Your task to perform on an android device: turn vacation reply on in the gmail app Image 0: 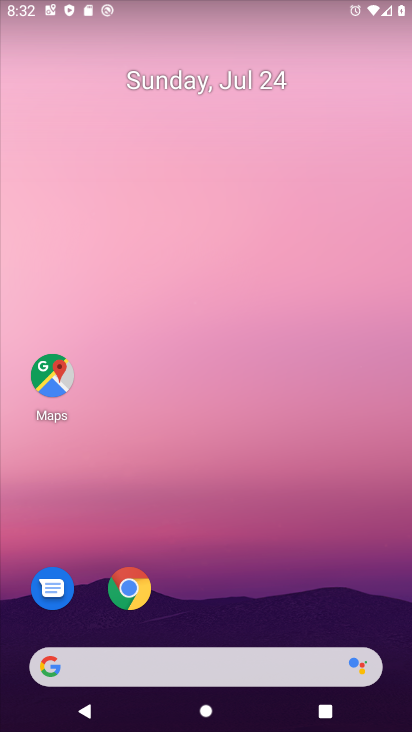
Step 0: drag from (237, 535) to (164, 39)
Your task to perform on an android device: turn vacation reply on in the gmail app Image 1: 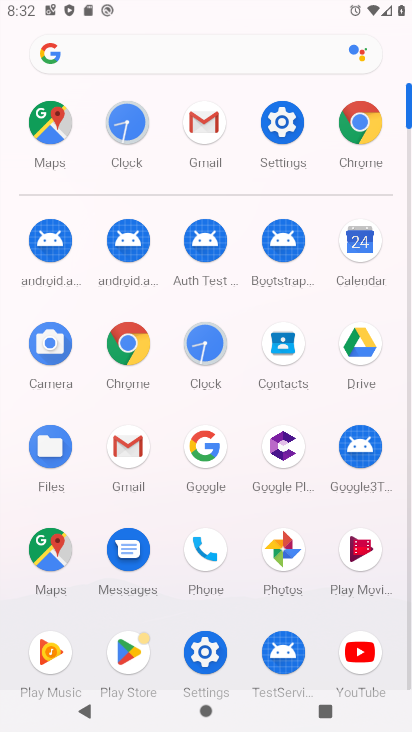
Step 1: click (196, 139)
Your task to perform on an android device: turn vacation reply on in the gmail app Image 2: 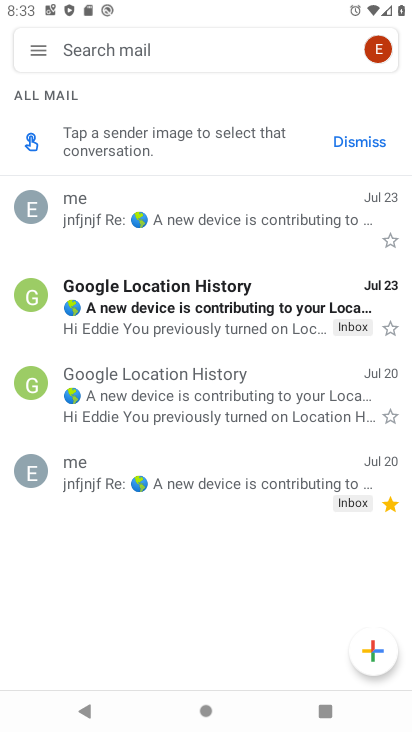
Step 2: click (23, 35)
Your task to perform on an android device: turn vacation reply on in the gmail app Image 3: 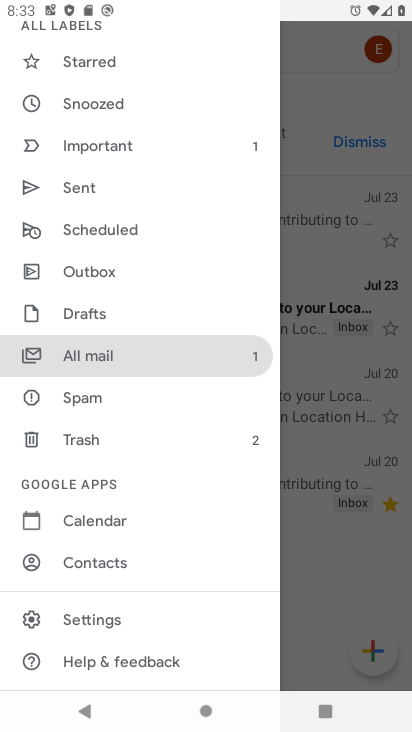
Step 3: click (108, 625)
Your task to perform on an android device: turn vacation reply on in the gmail app Image 4: 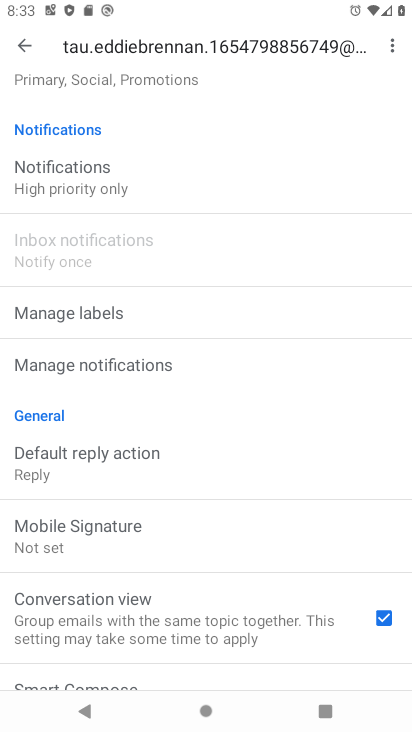
Step 4: drag from (121, 626) to (57, 311)
Your task to perform on an android device: turn vacation reply on in the gmail app Image 5: 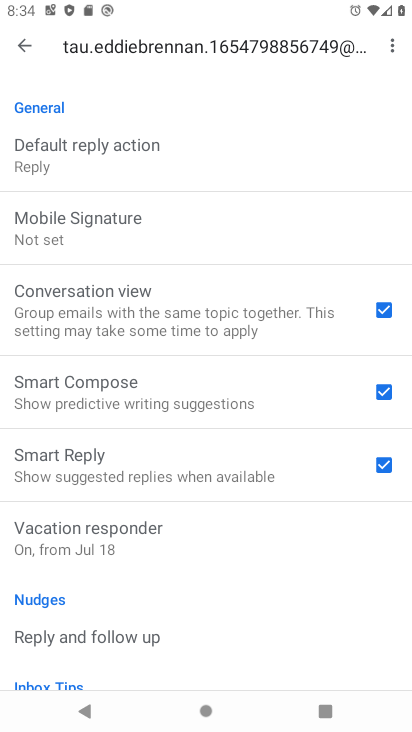
Step 5: click (82, 537)
Your task to perform on an android device: turn vacation reply on in the gmail app Image 6: 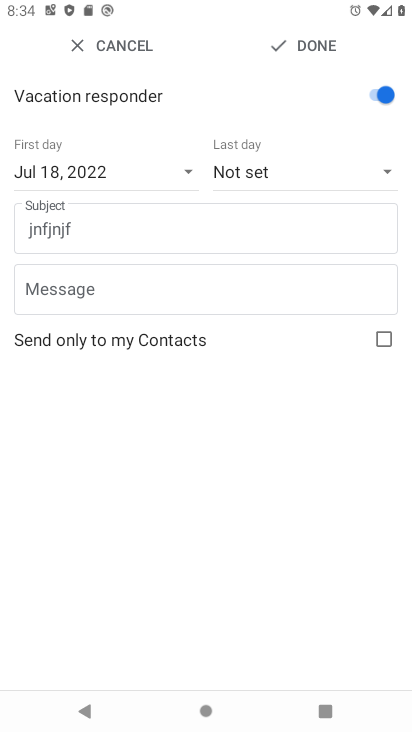
Step 6: task complete